Your task to perform on an android device: toggle translation in the chrome app Image 0: 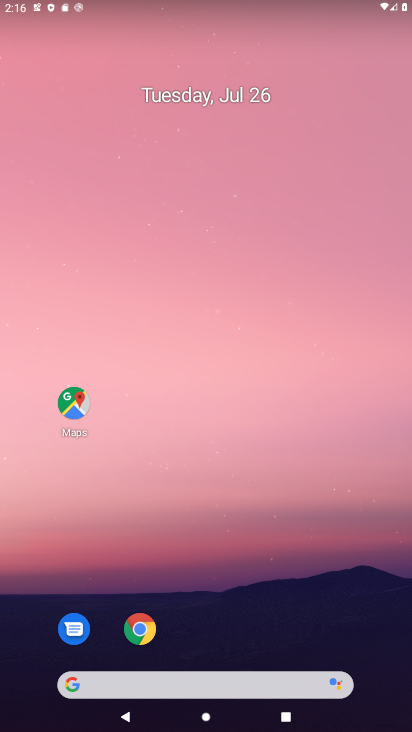
Step 0: click (143, 627)
Your task to perform on an android device: toggle translation in the chrome app Image 1: 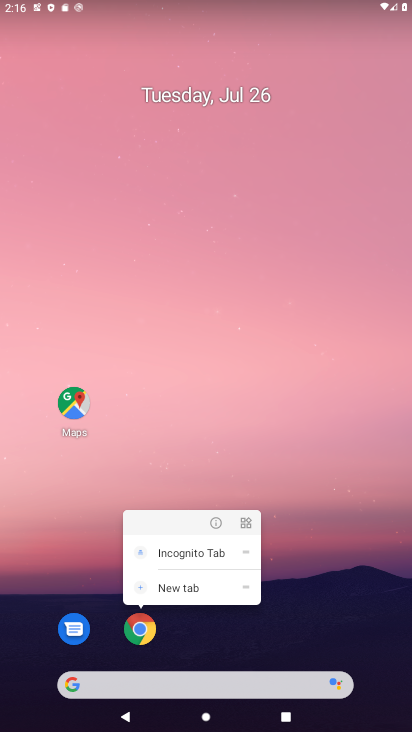
Step 1: click (143, 627)
Your task to perform on an android device: toggle translation in the chrome app Image 2: 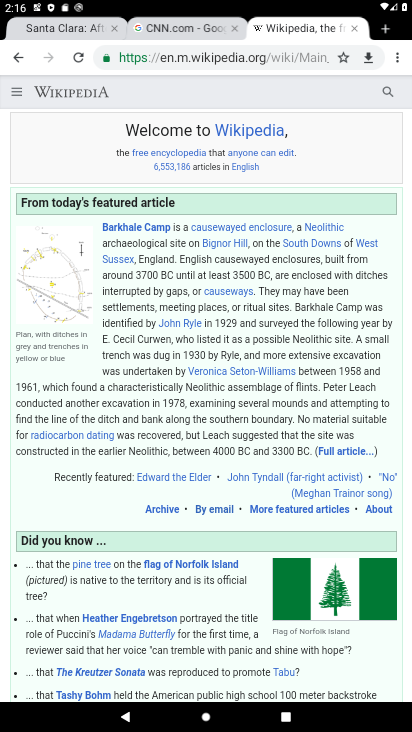
Step 2: click (390, 60)
Your task to perform on an android device: toggle translation in the chrome app Image 3: 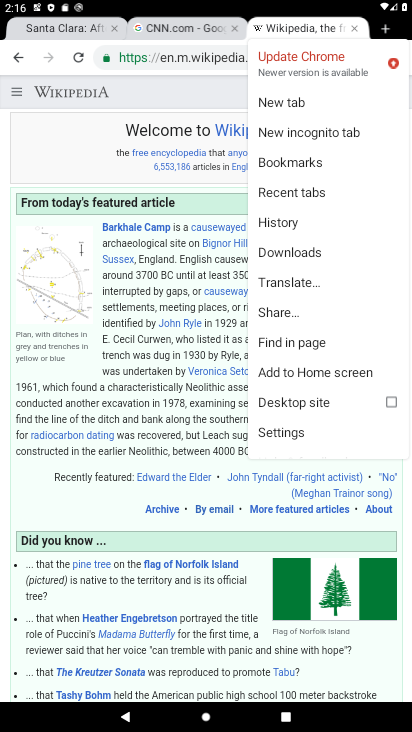
Step 3: click (314, 427)
Your task to perform on an android device: toggle translation in the chrome app Image 4: 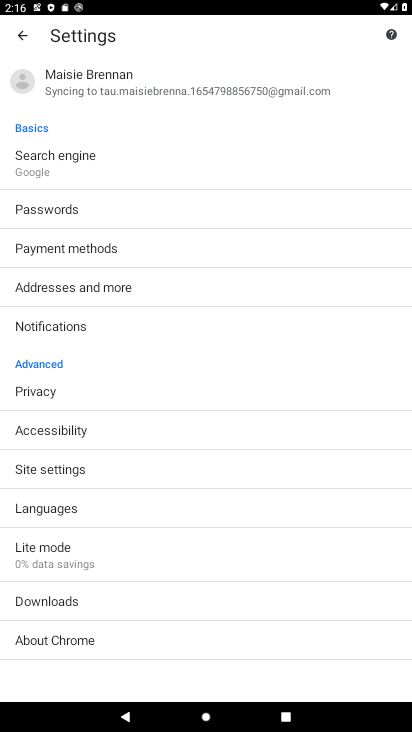
Step 4: click (64, 513)
Your task to perform on an android device: toggle translation in the chrome app Image 5: 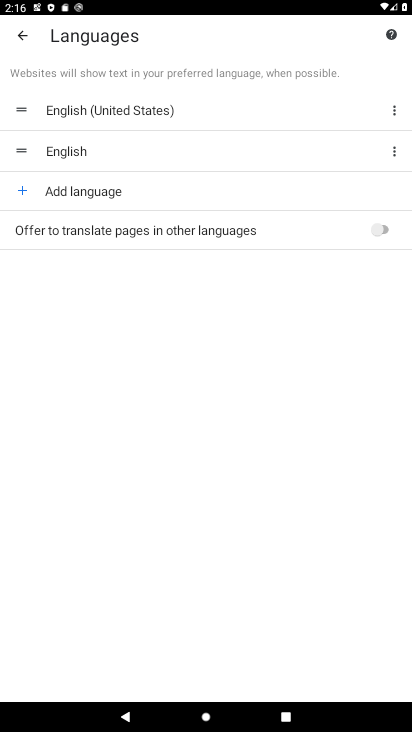
Step 5: click (381, 232)
Your task to perform on an android device: toggle translation in the chrome app Image 6: 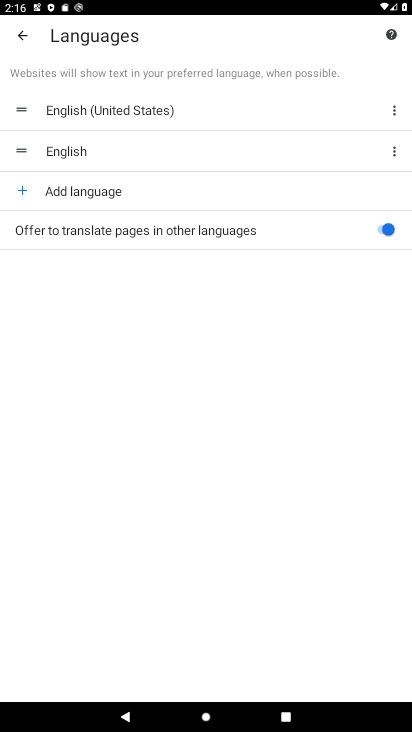
Step 6: task complete